Your task to perform on an android device: turn on notifications settings in the gmail app Image 0: 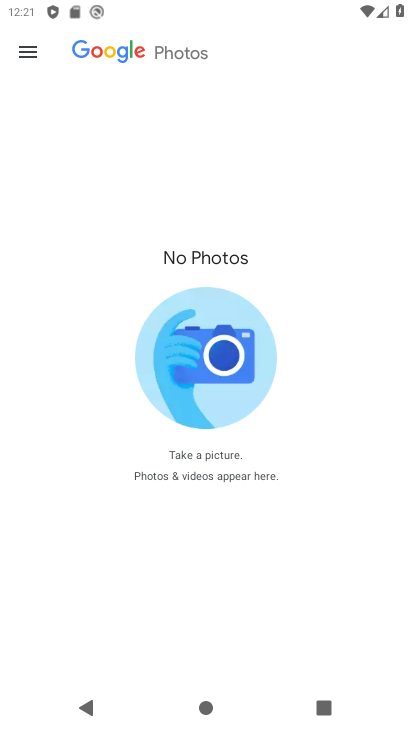
Step 0: press home button
Your task to perform on an android device: turn on notifications settings in the gmail app Image 1: 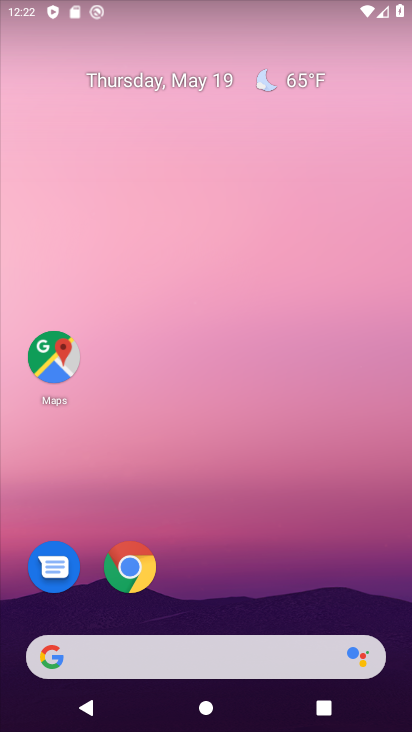
Step 1: drag from (266, 596) to (275, 149)
Your task to perform on an android device: turn on notifications settings in the gmail app Image 2: 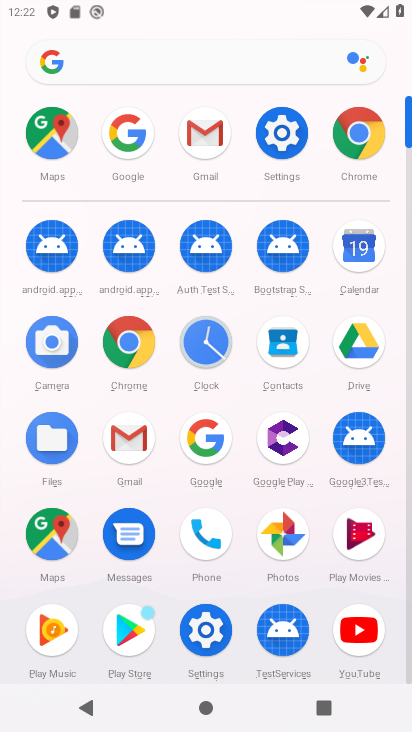
Step 2: click (205, 136)
Your task to perform on an android device: turn on notifications settings in the gmail app Image 3: 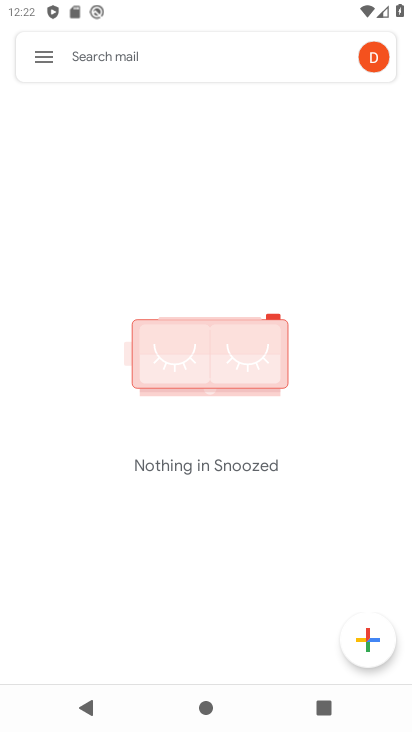
Step 3: click (49, 63)
Your task to perform on an android device: turn on notifications settings in the gmail app Image 4: 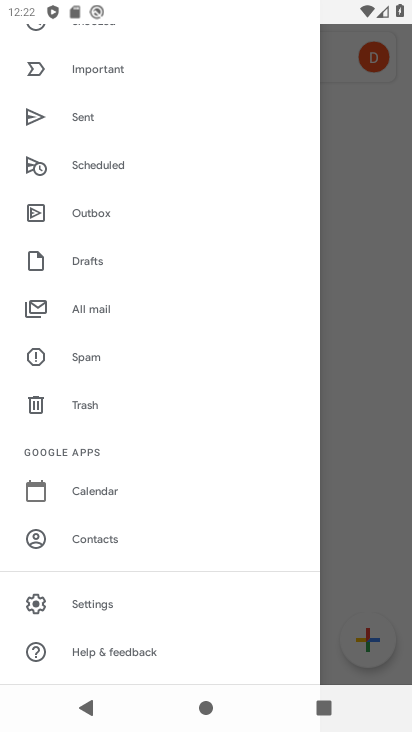
Step 4: click (120, 600)
Your task to perform on an android device: turn on notifications settings in the gmail app Image 5: 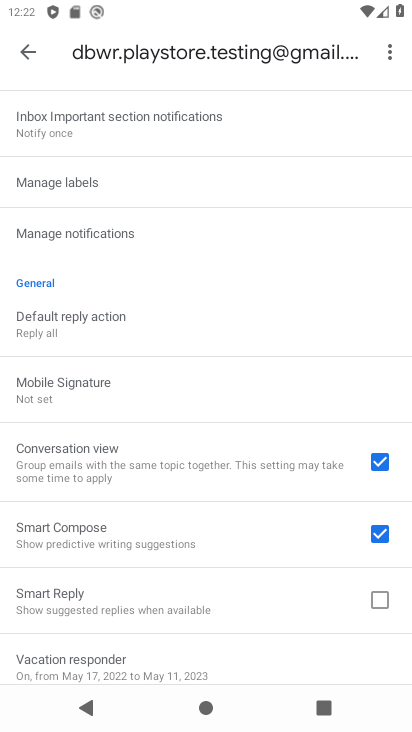
Step 5: click (159, 225)
Your task to perform on an android device: turn on notifications settings in the gmail app Image 6: 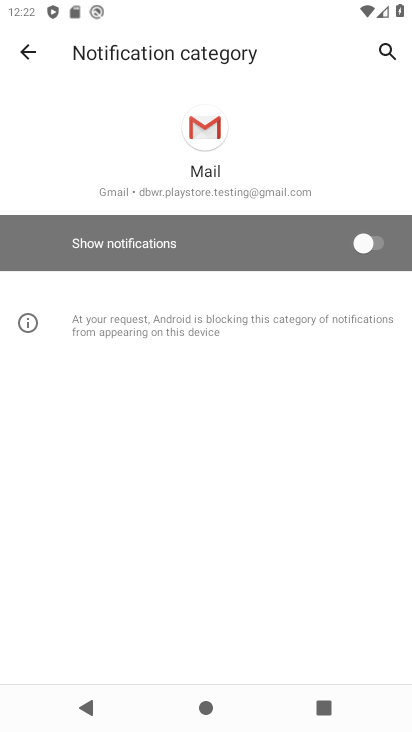
Step 6: click (382, 241)
Your task to perform on an android device: turn on notifications settings in the gmail app Image 7: 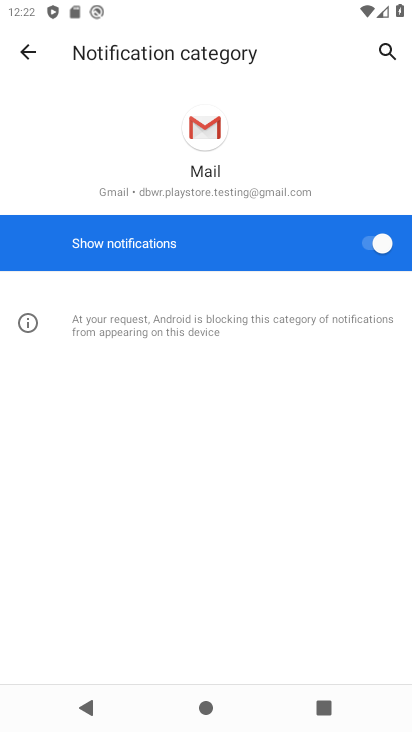
Step 7: task complete